Your task to perform on an android device: empty trash in the gmail app Image 0: 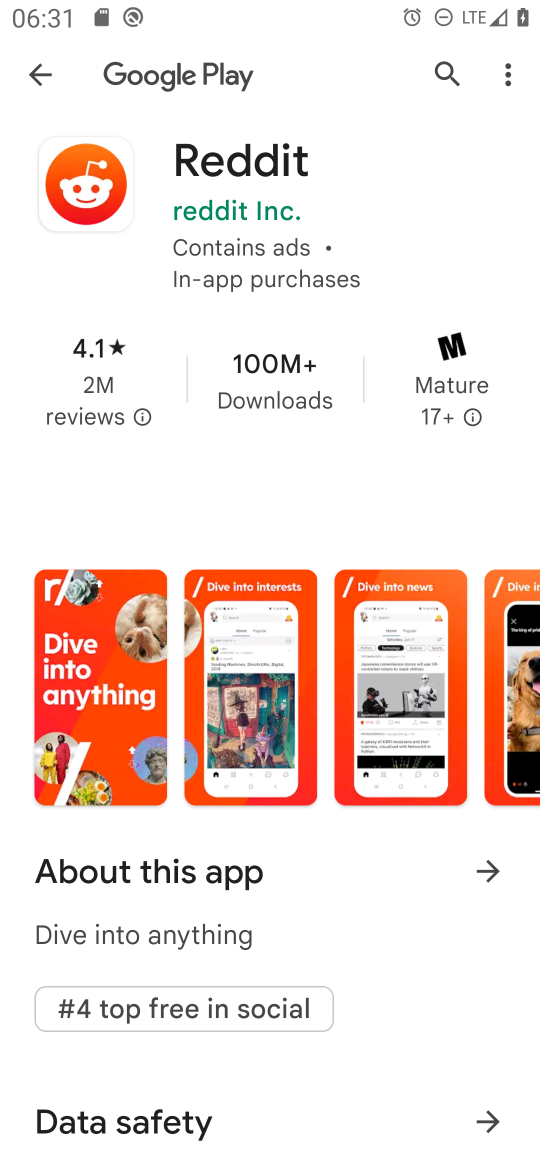
Step 0: press home button
Your task to perform on an android device: empty trash in the gmail app Image 1: 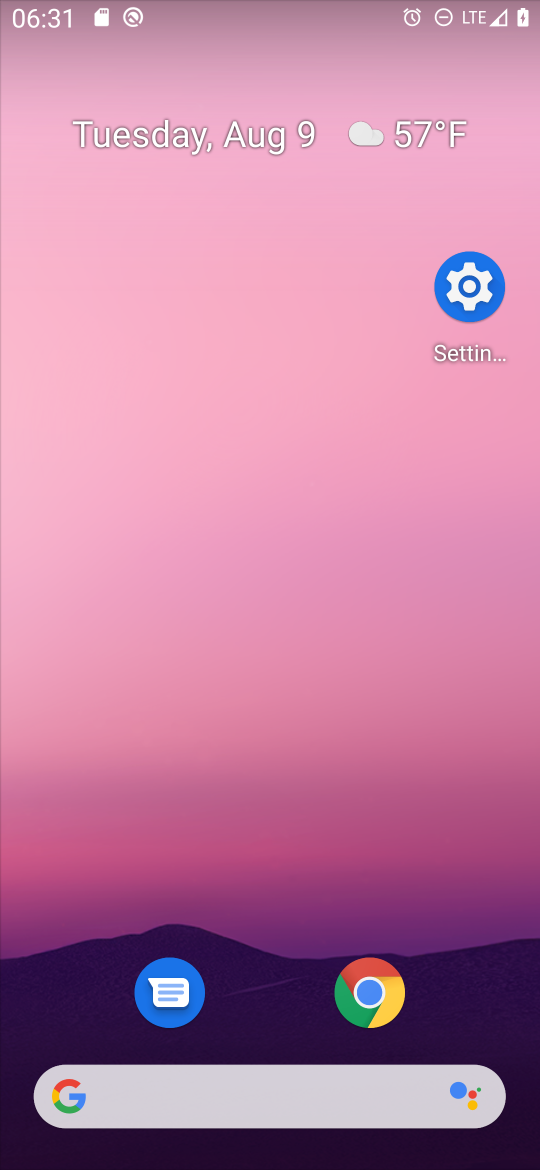
Step 1: drag from (317, 1100) to (59, 206)
Your task to perform on an android device: empty trash in the gmail app Image 2: 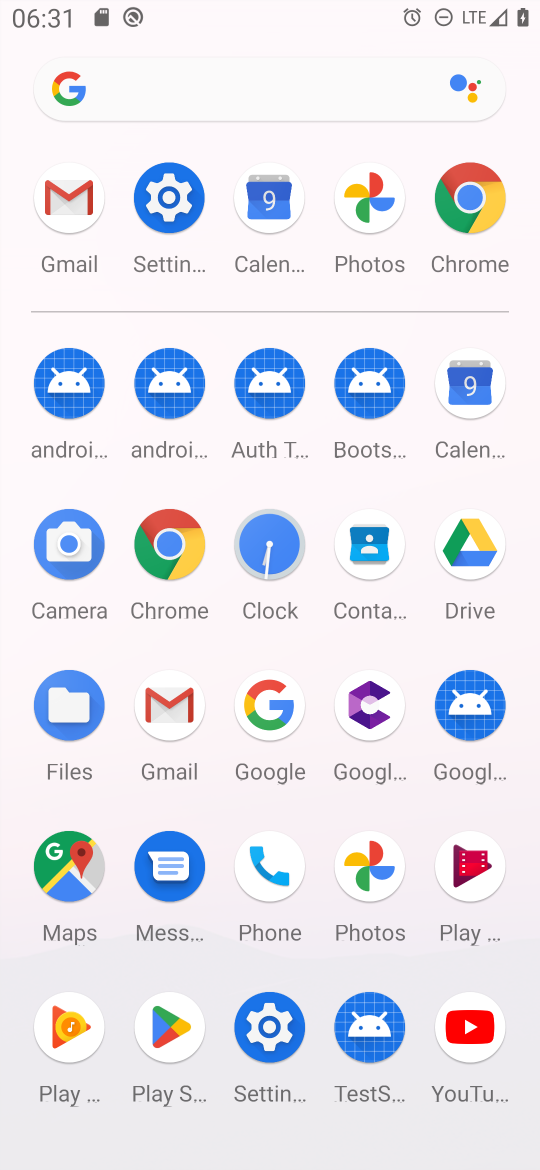
Step 2: click (172, 727)
Your task to perform on an android device: empty trash in the gmail app Image 3: 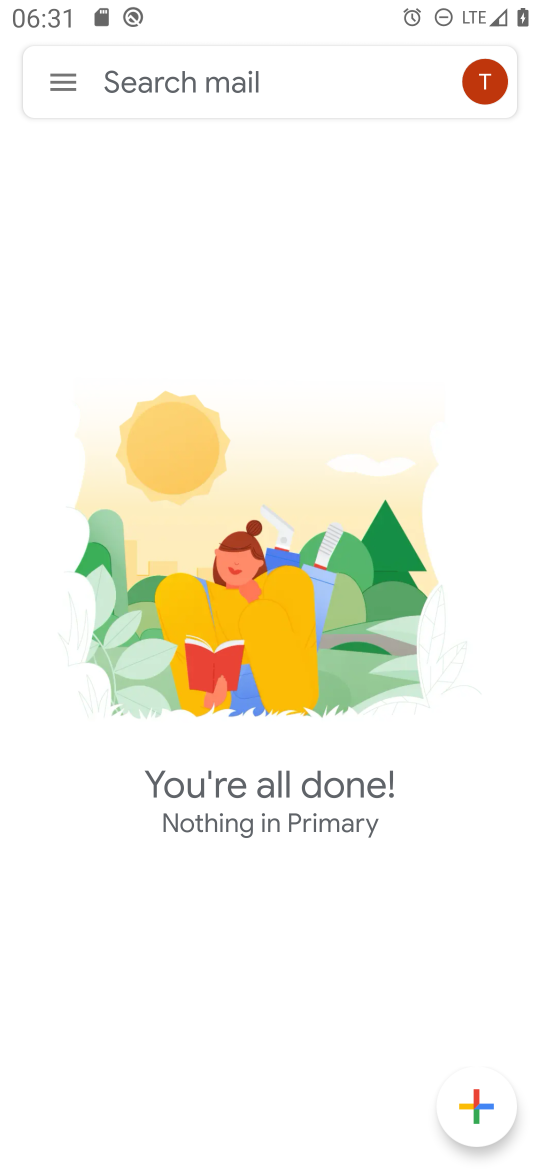
Step 3: click (65, 82)
Your task to perform on an android device: empty trash in the gmail app Image 4: 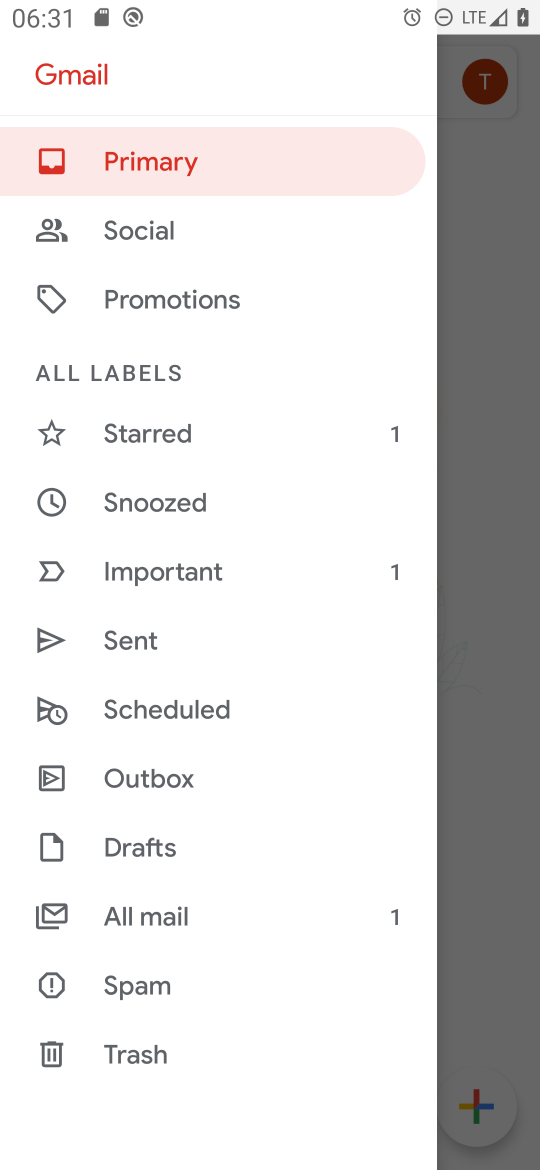
Step 4: click (129, 1055)
Your task to perform on an android device: empty trash in the gmail app Image 5: 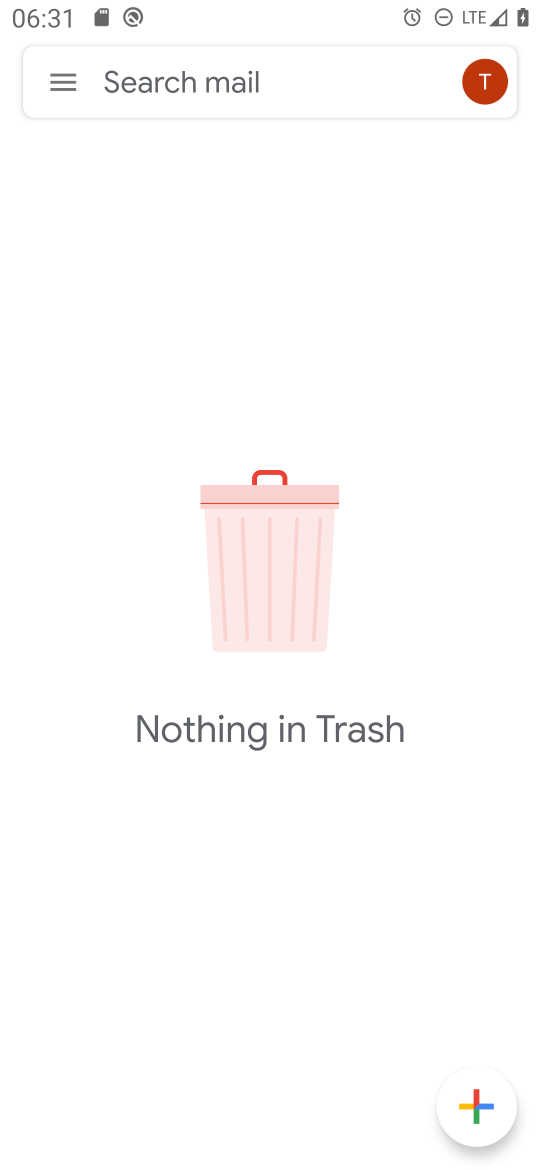
Step 5: task complete